Your task to perform on an android device: Go to Android settings Image 0: 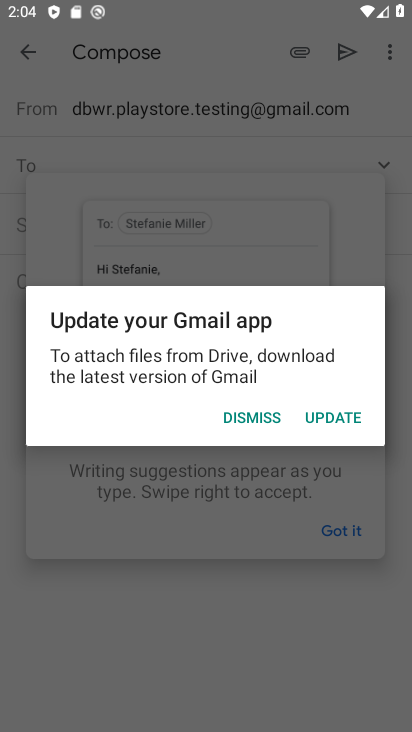
Step 0: press home button
Your task to perform on an android device: Go to Android settings Image 1: 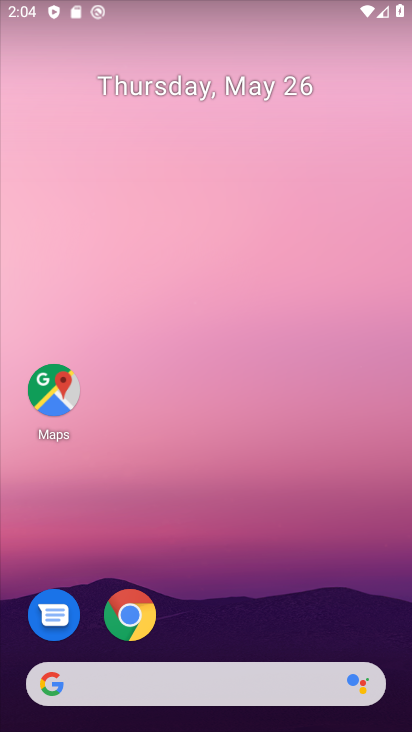
Step 1: drag from (178, 620) to (294, 135)
Your task to perform on an android device: Go to Android settings Image 2: 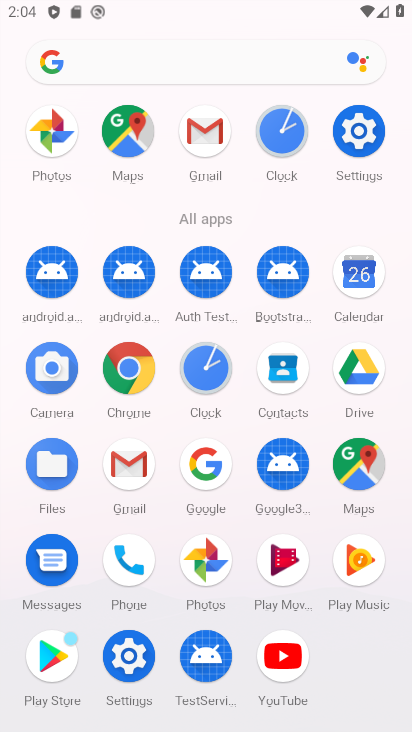
Step 2: click (115, 663)
Your task to perform on an android device: Go to Android settings Image 3: 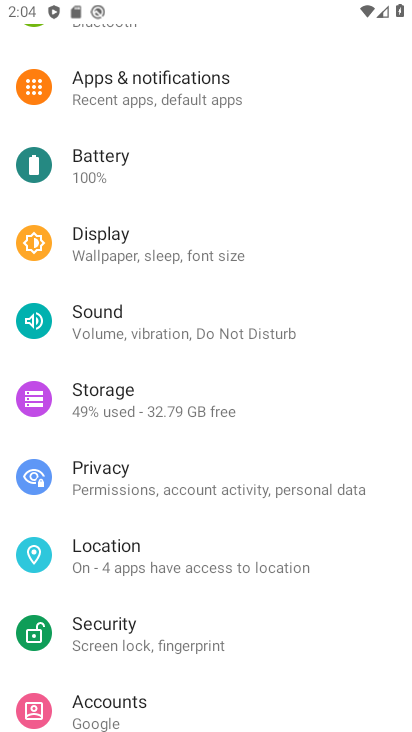
Step 3: task complete